Your task to perform on an android device: turn on the 24-hour format for clock Image 0: 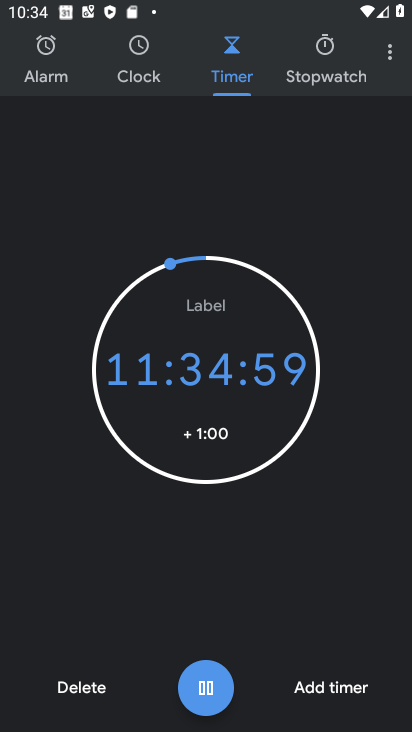
Step 0: click (391, 50)
Your task to perform on an android device: turn on the 24-hour format for clock Image 1: 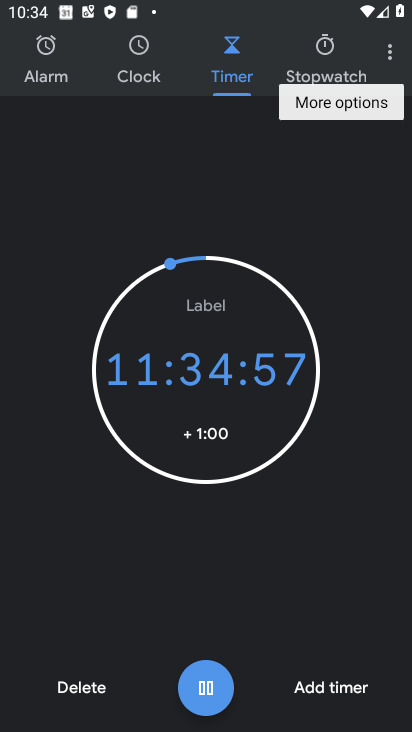
Step 1: click (391, 50)
Your task to perform on an android device: turn on the 24-hour format for clock Image 2: 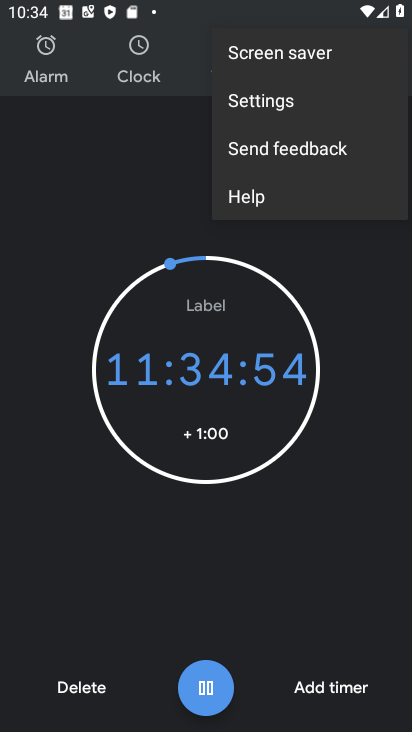
Step 2: click (320, 101)
Your task to perform on an android device: turn on the 24-hour format for clock Image 3: 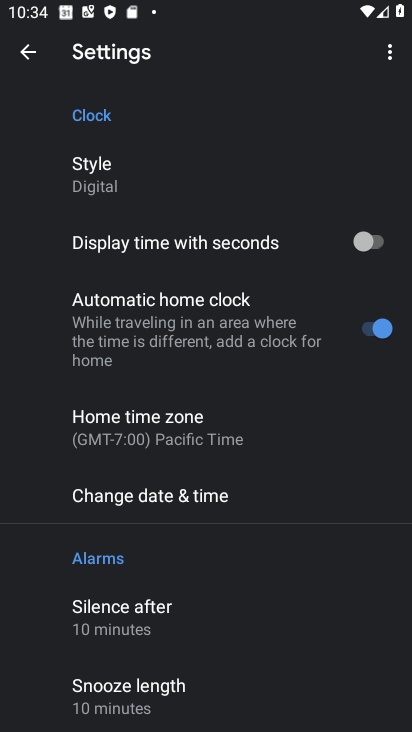
Step 3: drag from (320, 700) to (331, 540)
Your task to perform on an android device: turn on the 24-hour format for clock Image 4: 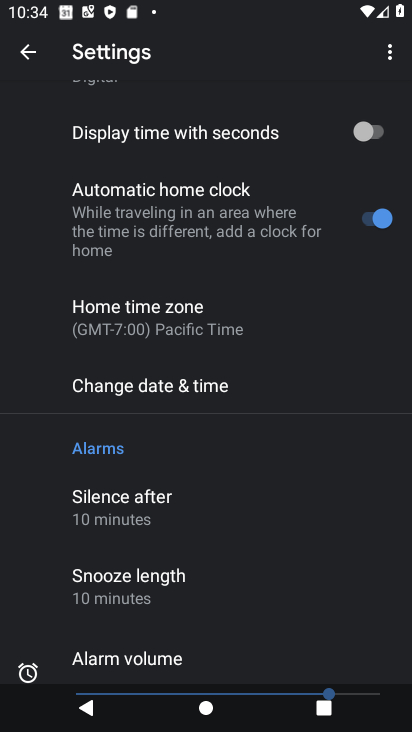
Step 4: click (242, 387)
Your task to perform on an android device: turn on the 24-hour format for clock Image 5: 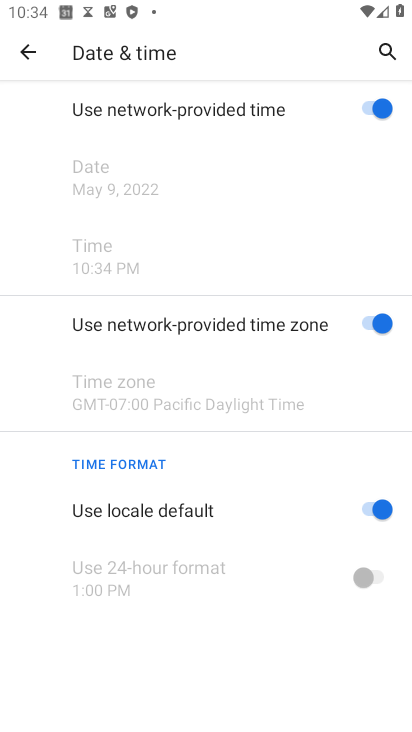
Step 5: click (390, 514)
Your task to perform on an android device: turn on the 24-hour format for clock Image 6: 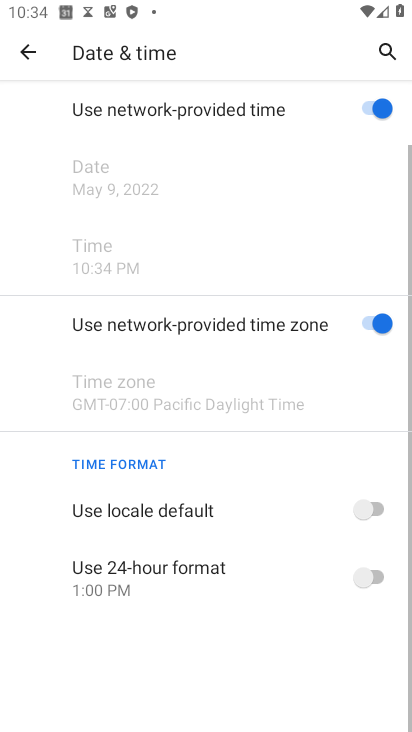
Step 6: click (370, 579)
Your task to perform on an android device: turn on the 24-hour format for clock Image 7: 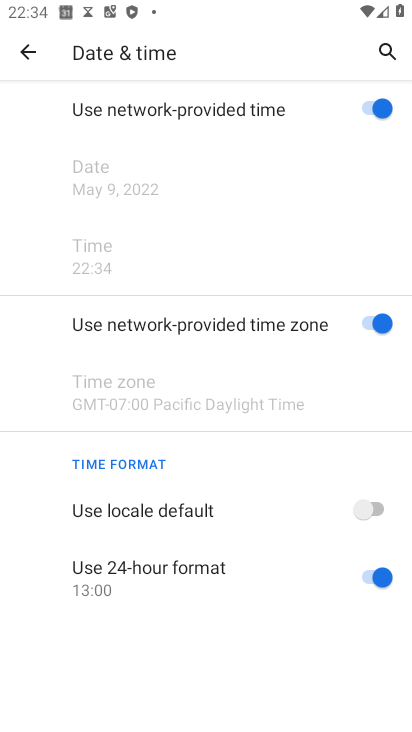
Step 7: task complete